Your task to perform on an android device: Go to internet settings Image 0: 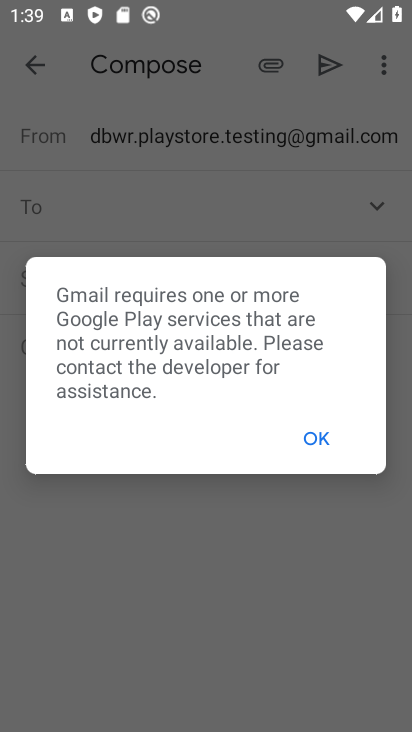
Step 0: click (307, 448)
Your task to perform on an android device: Go to internet settings Image 1: 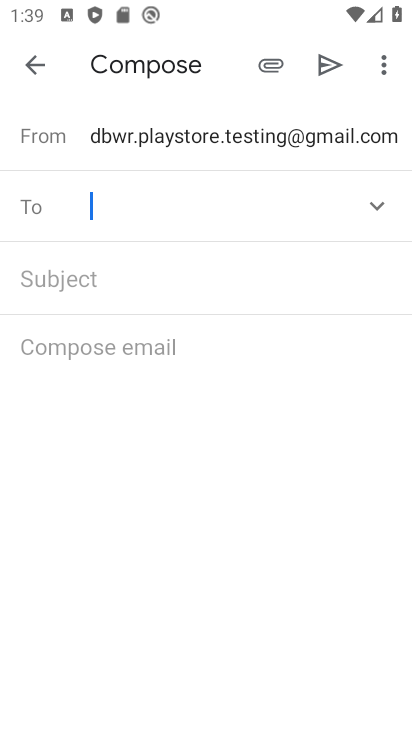
Step 1: press home button
Your task to perform on an android device: Go to internet settings Image 2: 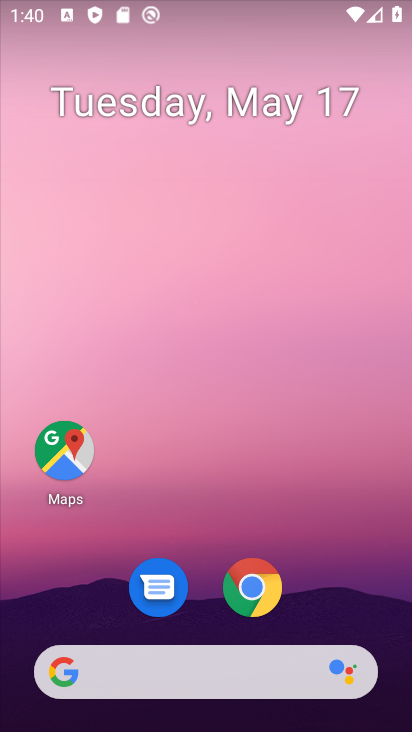
Step 2: drag from (208, 569) to (232, 322)
Your task to perform on an android device: Go to internet settings Image 3: 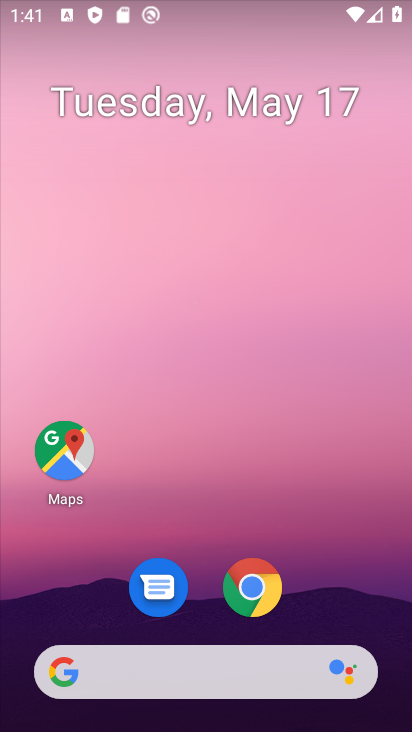
Step 3: drag from (202, 614) to (290, 191)
Your task to perform on an android device: Go to internet settings Image 4: 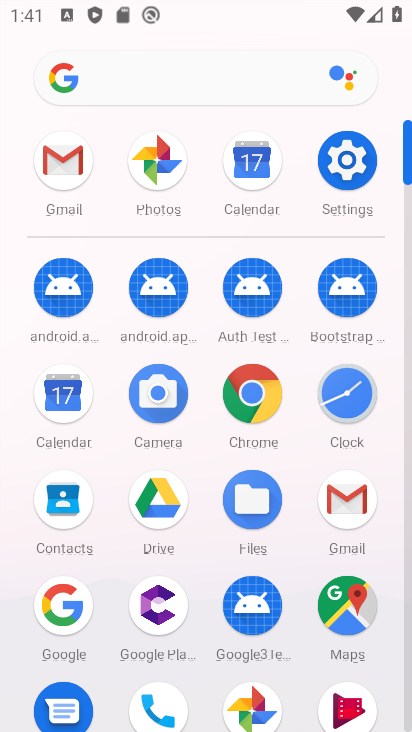
Step 4: click (338, 153)
Your task to perform on an android device: Go to internet settings Image 5: 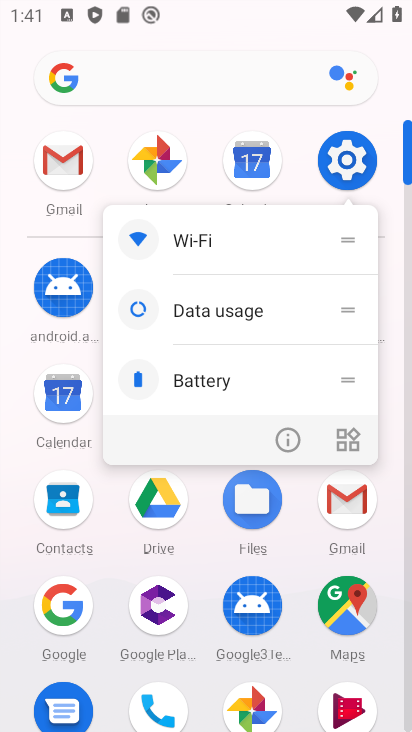
Step 5: click (294, 423)
Your task to perform on an android device: Go to internet settings Image 6: 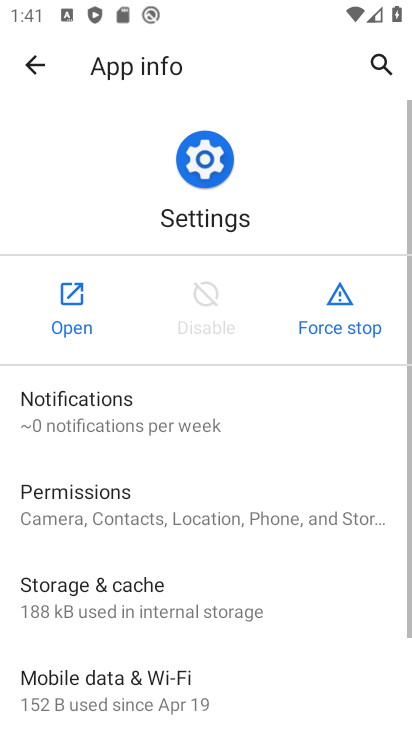
Step 6: click (66, 277)
Your task to perform on an android device: Go to internet settings Image 7: 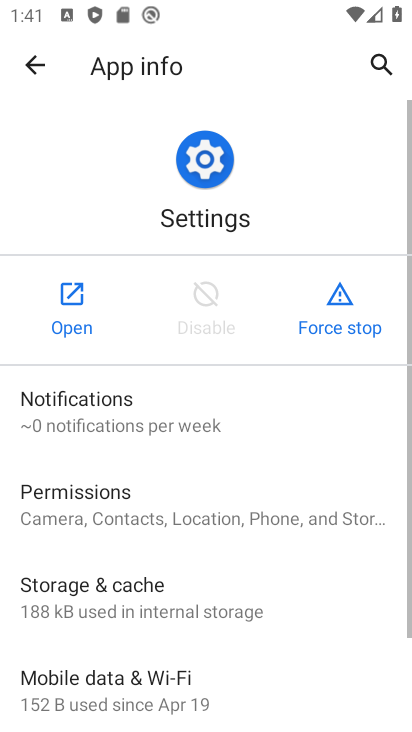
Step 7: click (66, 277)
Your task to perform on an android device: Go to internet settings Image 8: 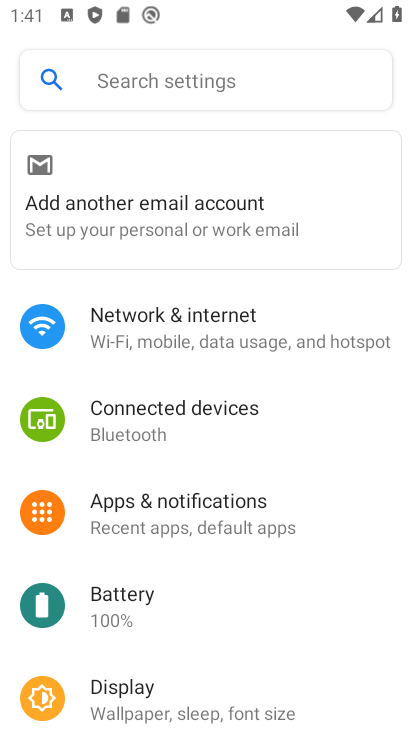
Step 8: drag from (232, 487) to (338, 279)
Your task to perform on an android device: Go to internet settings Image 9: 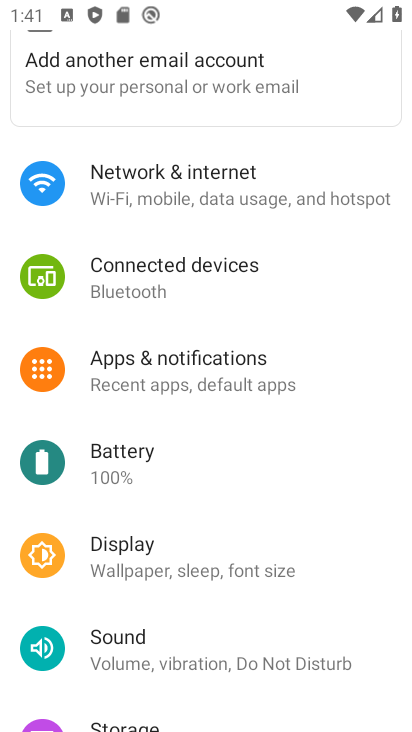
Step 9: click (163, 187)
Your task to perform on an android device: Go to internet settings Image 10: 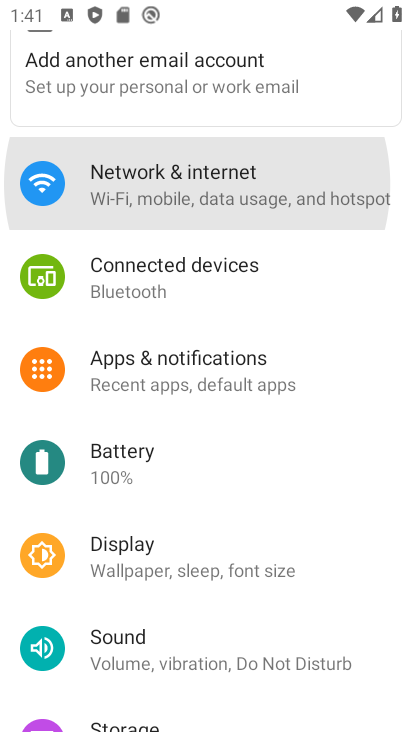
Step 10: click (162, 186)
Your task to perform on an android device: Go to internet settings Image 11: 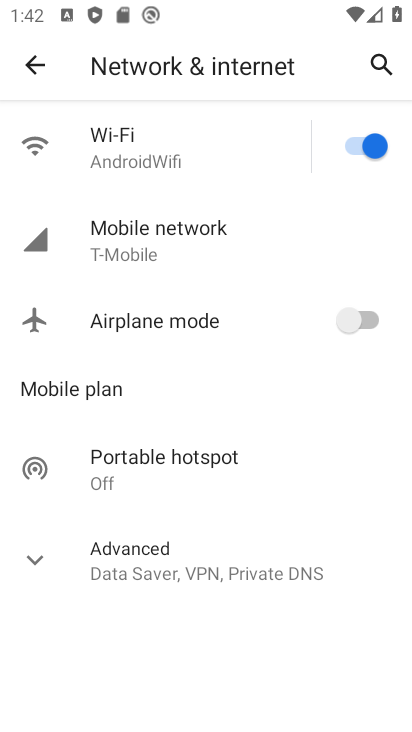
Step 11: task complete